Your task to perform on an android device: turn pop-ups off in chrome Image 0: 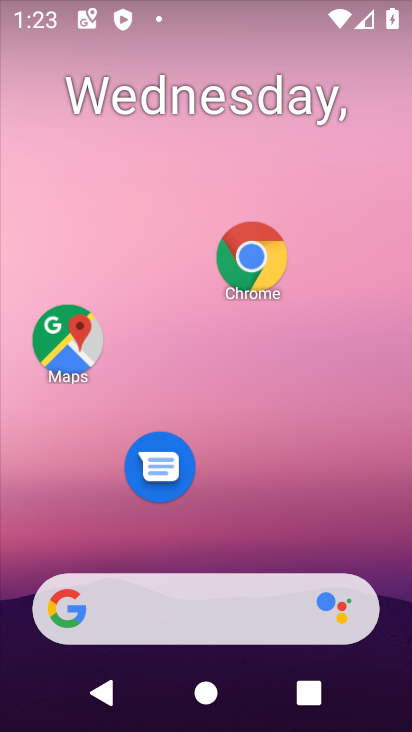
Step 0: click (251, 251)
Your task to perform on an android device: turn pop-ups off in chrome Image 1: 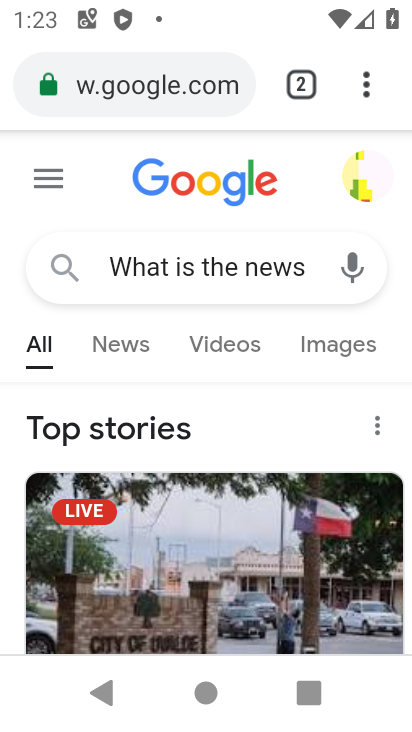
Step 1: drag from (384, 73) to (59, 519)
Your task to perform on an android device: turn pop-ups off in chrome Image 2: 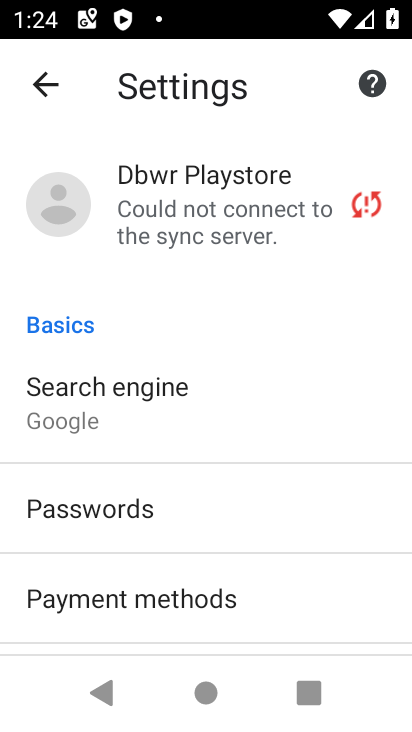
Step 2: drag from (312, 558) to (223, 235)
Your task to perform on an android device: turn pop-ups off in chrome Image 3: 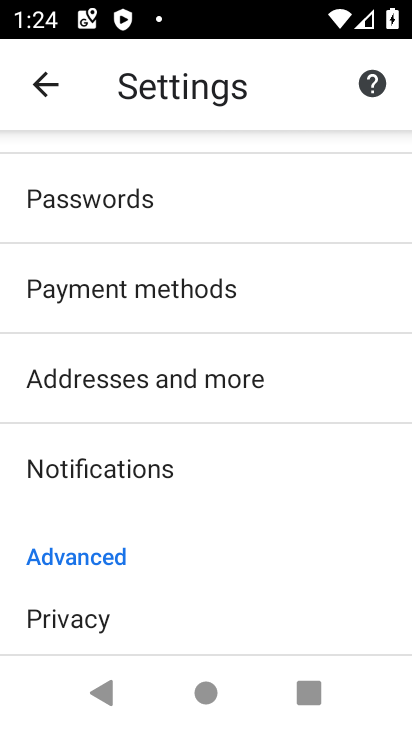
Step 3: drag from (229, 603) to (208, 228)
Your task to perform on an android device: turn pop-ups off in chrome Image 4: 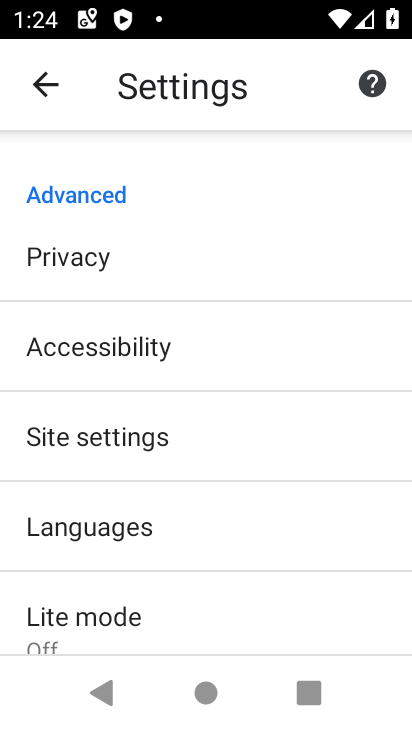
Step 4: click (208, 228)
Your task to perform on an android device: turn pop-ups off in chrome Image 5: 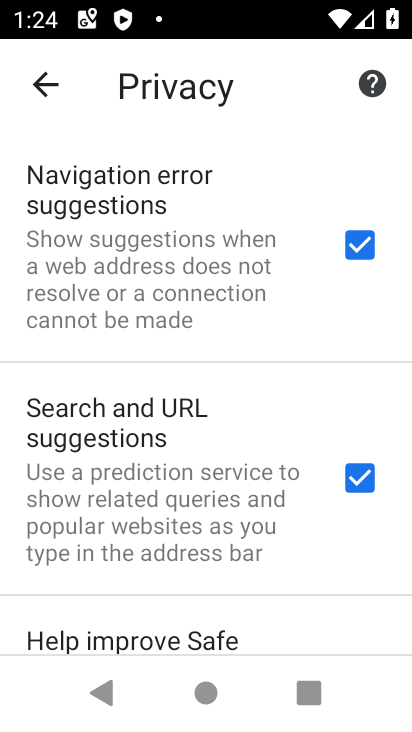
Step 5: click (28, 92)
Your task to perform on an android device: turn pop-ups off in chrome Image 6: 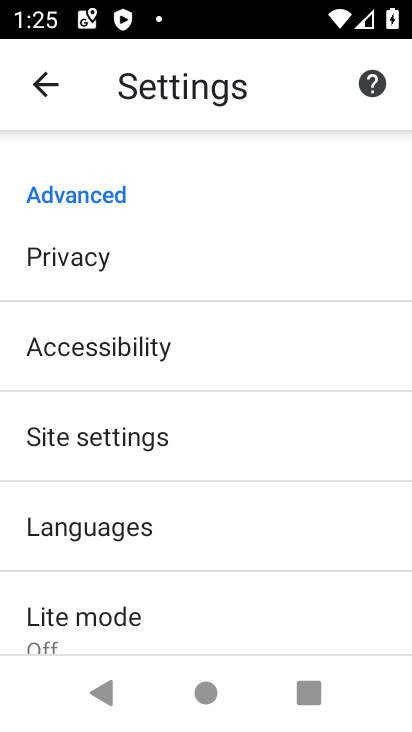
Step 6: drag from (199, 552) to (198, 278)
Your task to perform on an android device: turn pop-ups off in chrome Image 7: 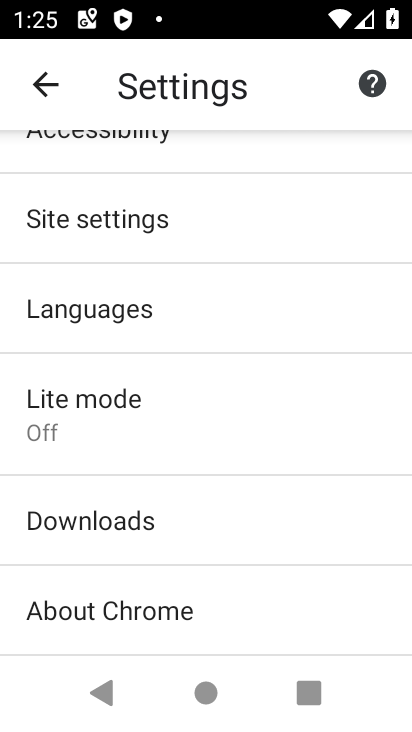
Step 7: click (178, 522)
Your task to perform on an android device: turn pop-ups off in chrome Image 8: 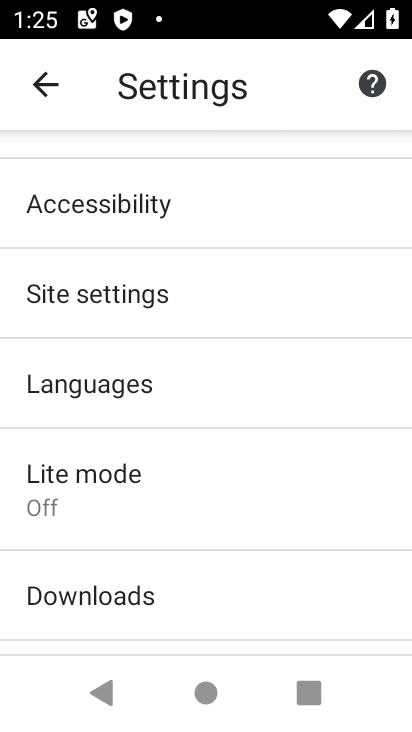
Step 8: click (172, 316)
Your task to perform on an android device: turn pop-ups off in chrome Image 9: 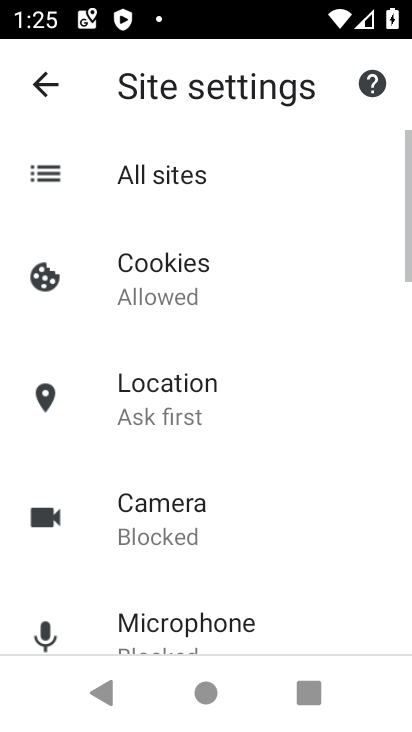
Step 9: drag from (233, 586) to (246, 191)
Your task to perform on an android device: turn pop-ups off in chrome Image 10: 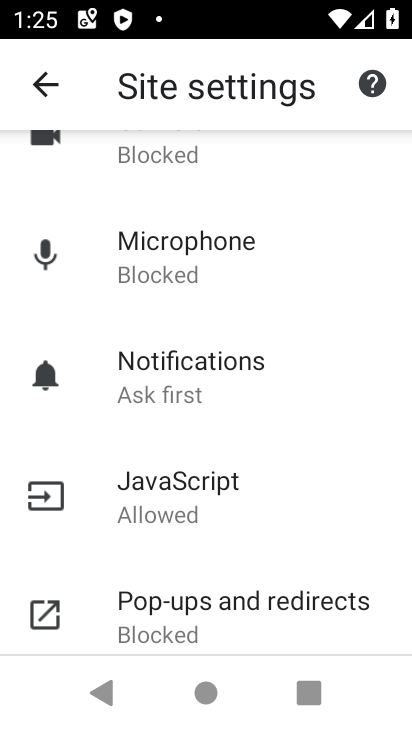
Step 10: click (253, 609)
Your task to perform on an android device: turn pop-ups off in chrome Image 11: 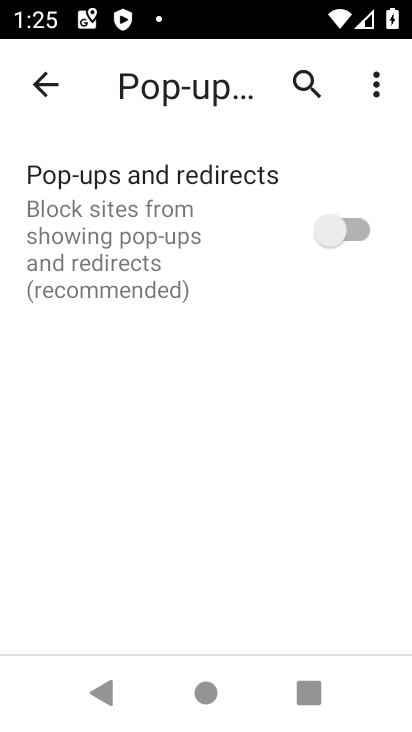
Step 11: task complete